Your task to perform on an android device: open app "Google Photos" (install if not already installed) Image 0: 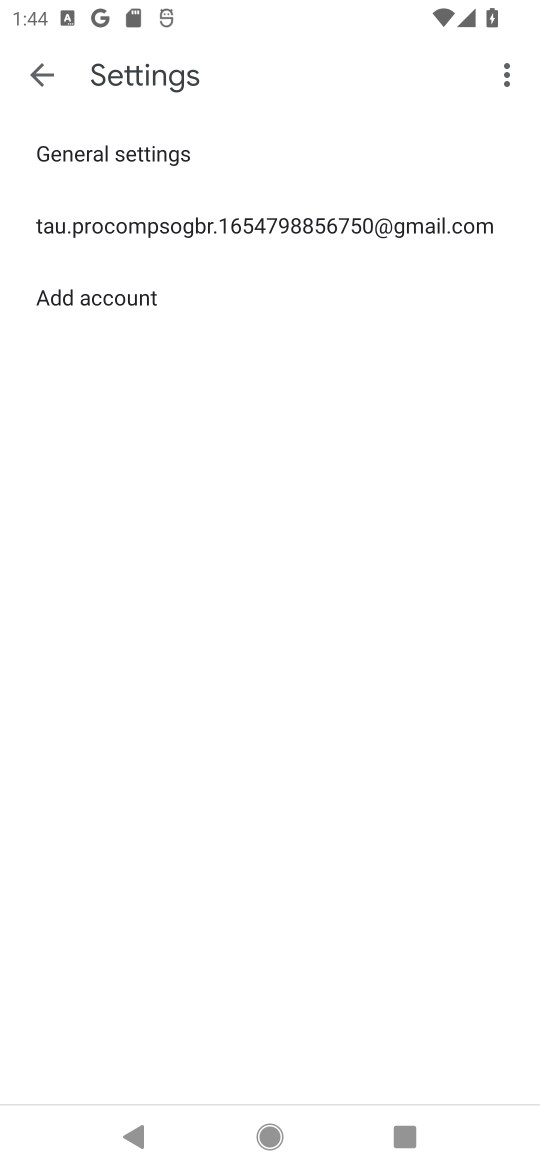
Step 0: press back button
Your task to perform on an android device: open app "Google Photos" (install if not already installed) Image 1: 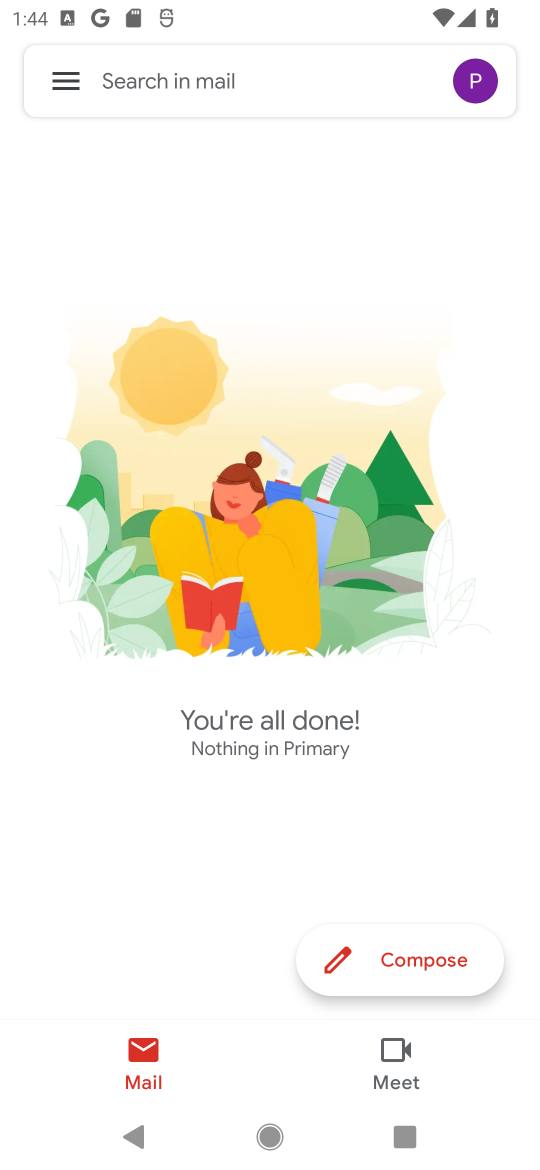
Step 1: press back button
Your task to perform on an android device: open app "Google Photos" (install if not already installed) Image 2: 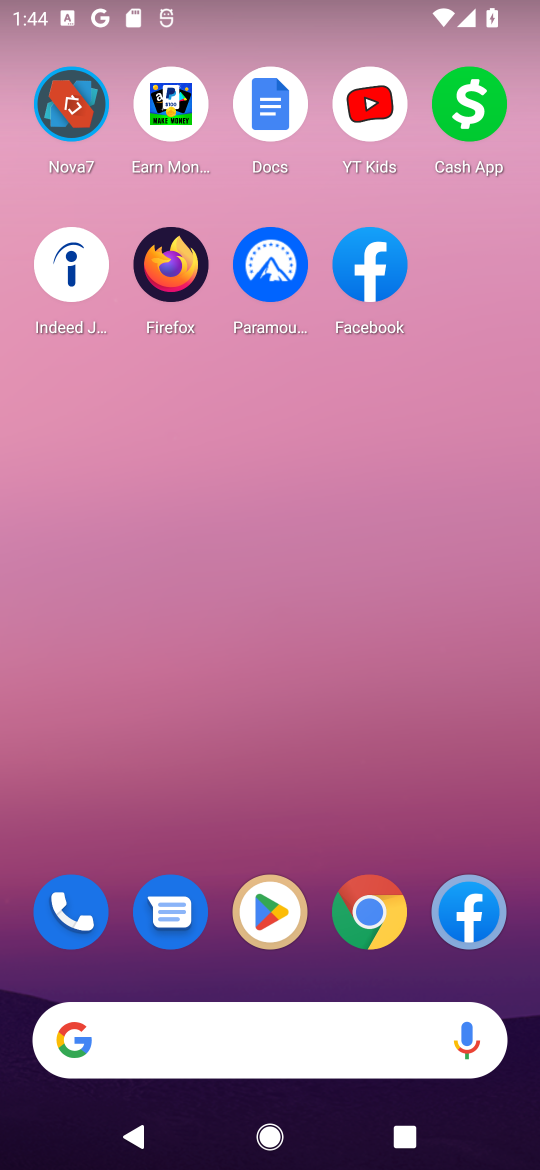
Step 2: click (265, 893)
Your task to perform on an android device: open app "Google Photos" (install if not already installed) Image 3: 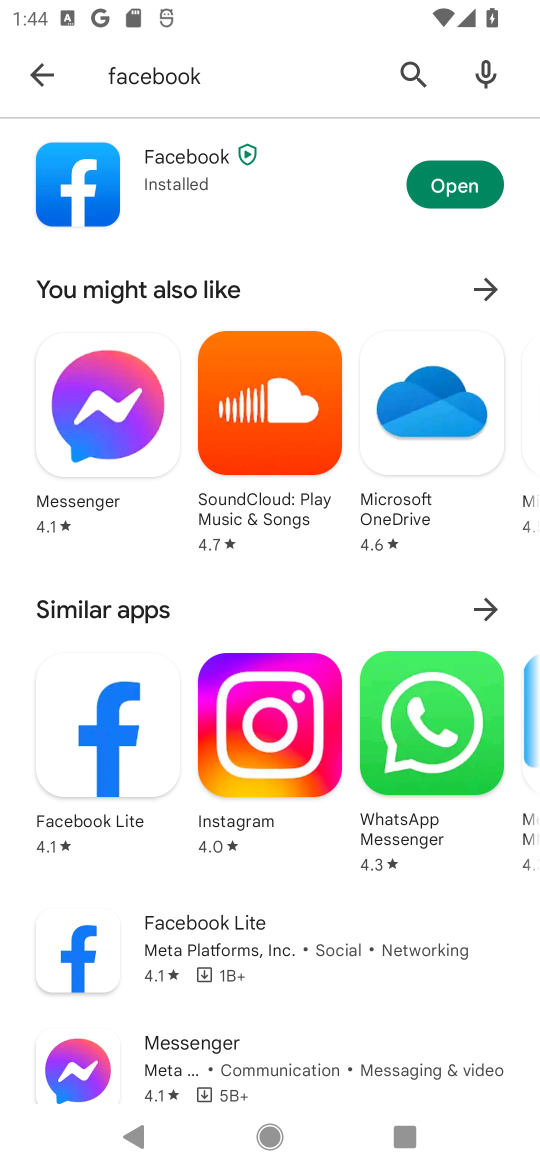
Step 3: click (178, 84)
Your task to perform on an android device: open app "Google Photos" (install if not already installed) Image 4: 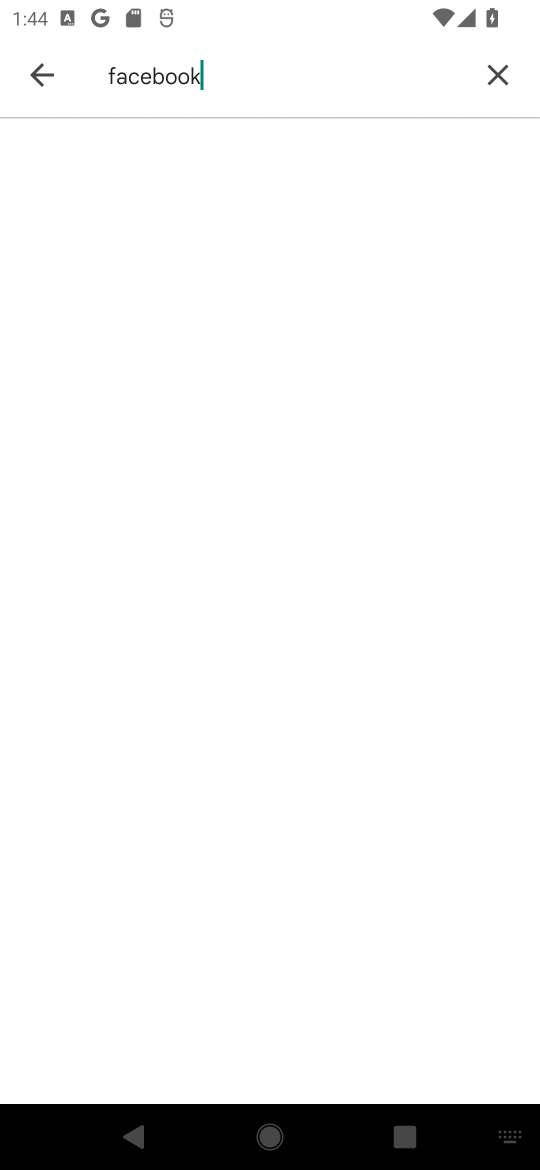
Step 4: click (407, 67)
Your task to perform on an android device: open app "Google Photos" (install if not already installed) Image 5: 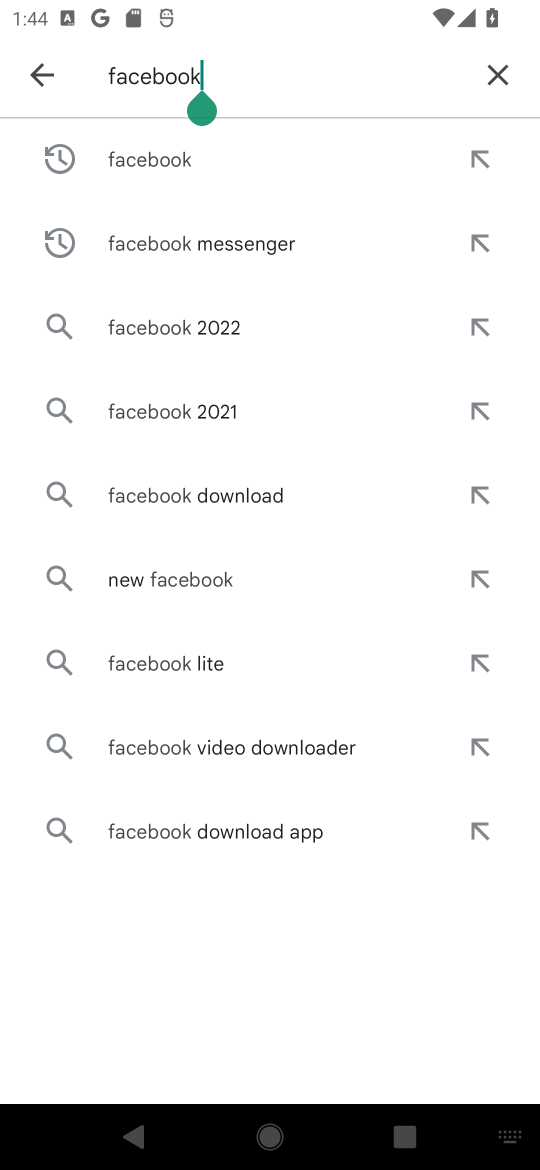
Step 5: click (499, 80)
Your task to perform on an android device: open app "Google Photos" (install if not already installed) Image 6: 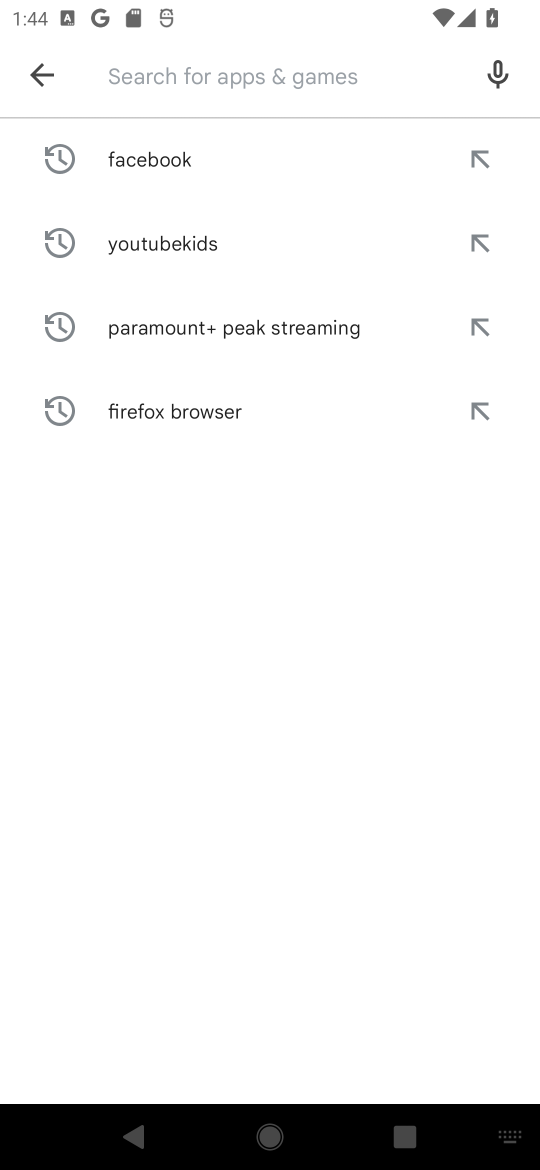
Step 6: type "Google Photos"
Your task to perform on an android device: open app "Google Photos" (install if not already installed) Image 7: 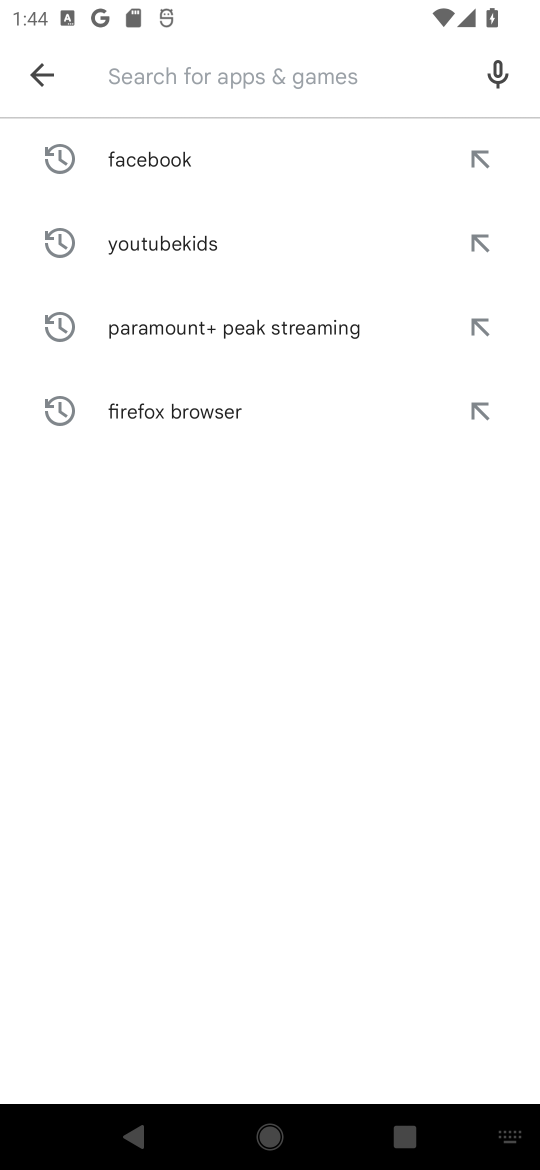
Step 7: click (390, 768)
Your task to perform on an android device: open app "Google Photos" (install if not already installed) Image 8: 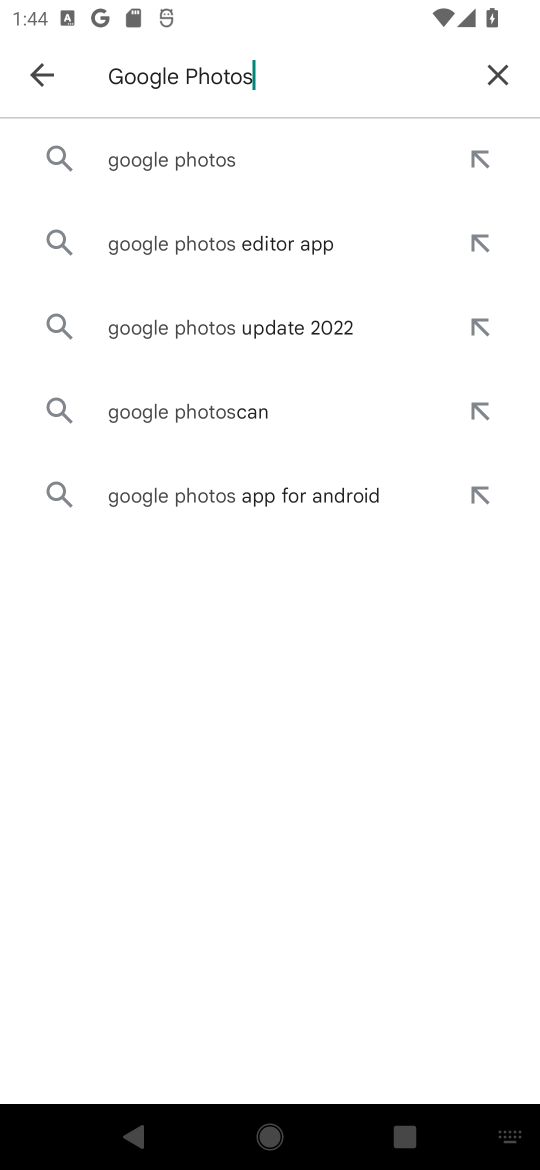
Step 8: click (173, 165)
Your task to perform on an android device: open app "Google Photos" (install if not already installed) Image 9: 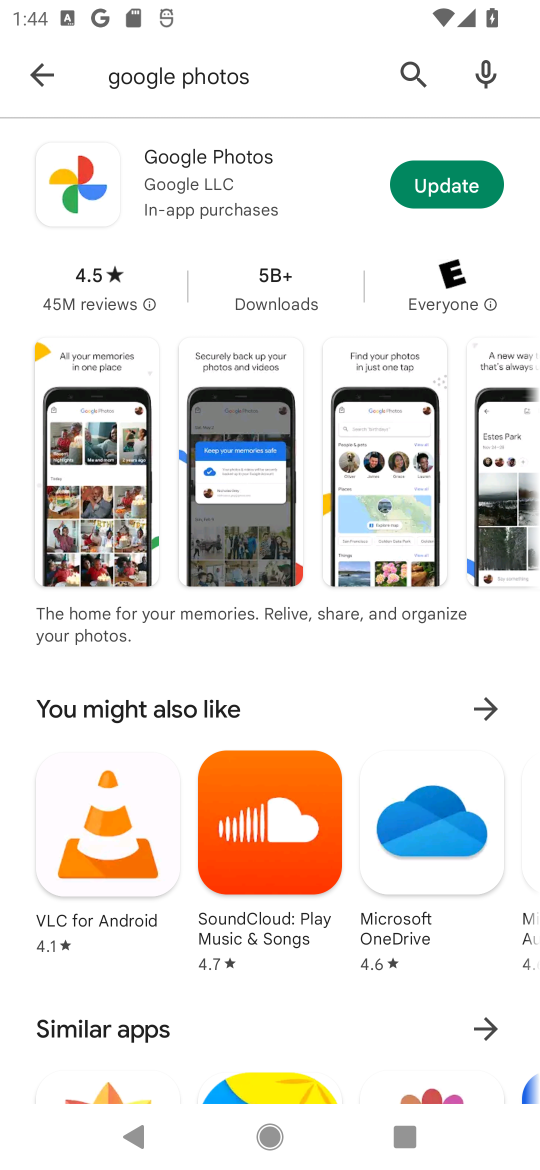
Step 9: click (282, 187)
Your task to perform on an android device: open app "Google Photos" (install if not already installed) Image 10: 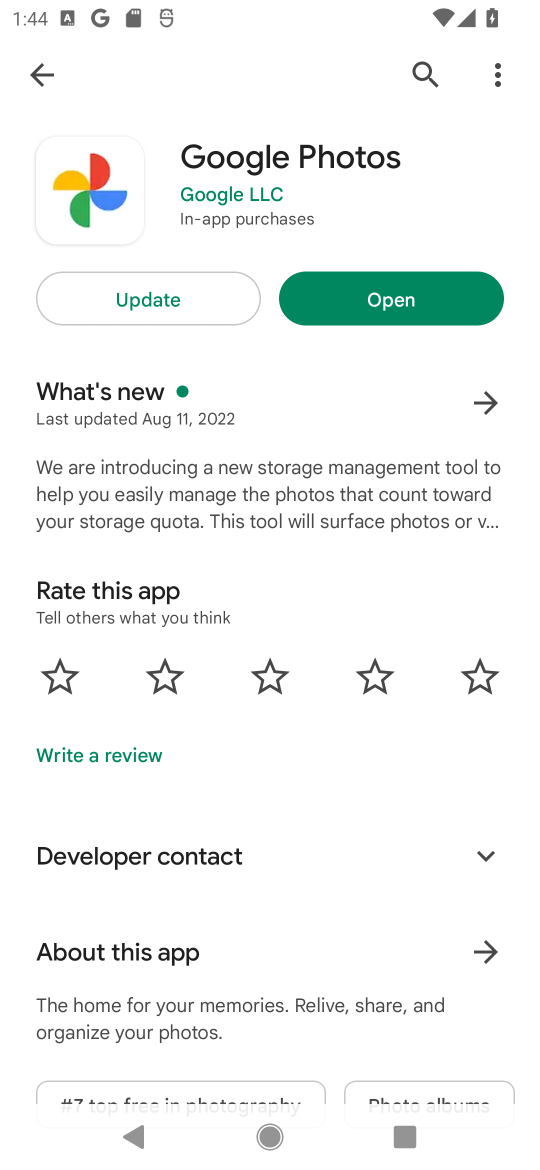
Step 10: click (436, 302)
Your task to perform on an android device: open app "Google Photos" (install if not already installed) Image 11: 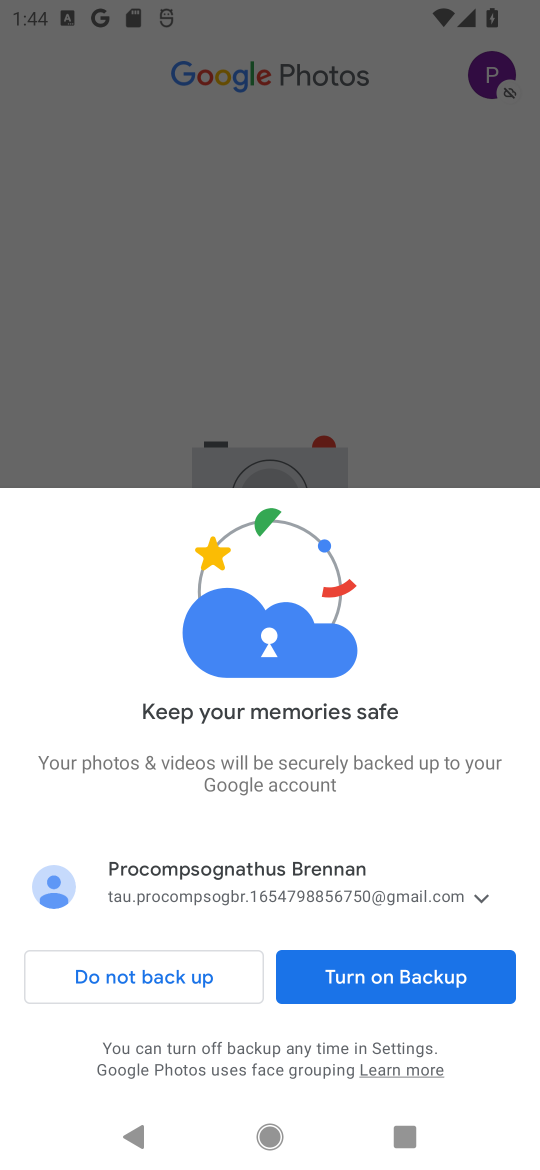
Step 11: task complete